Your task to perform on an android device: move an email to a new category in the gmail app Image 0: 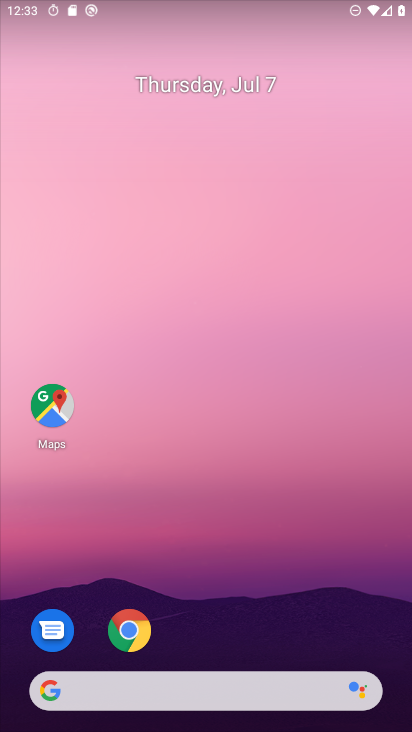
Step 0: drag from (212, 622) to (225, 56)
Your task to perform on an android device: move an email to a new category in the gmail app Image 1: 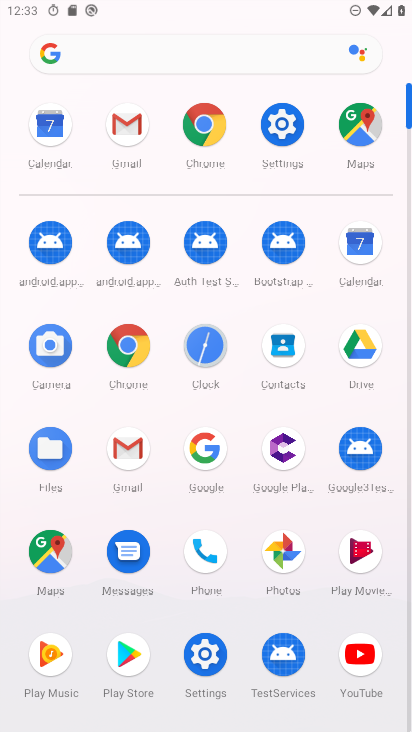
Step 1: click (107, 441)
Your task to perform on an android device: move an email to a new category in the gmail app Image 2: 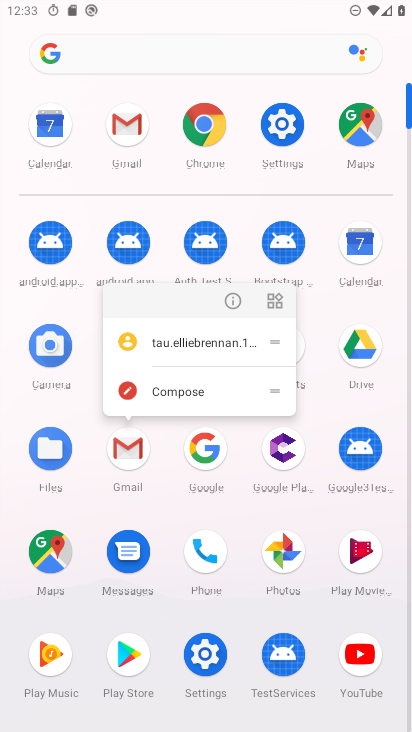
Step 2: click (142, 445)
Your task to perform on an android device: move an email to a new category in the gmail app Image 3: 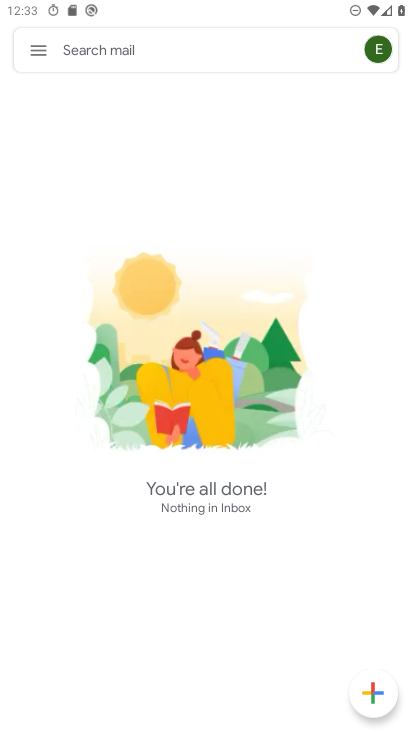
Step 3: task complete